Your task to perform on an android device: Go to privacy settings Image 0: 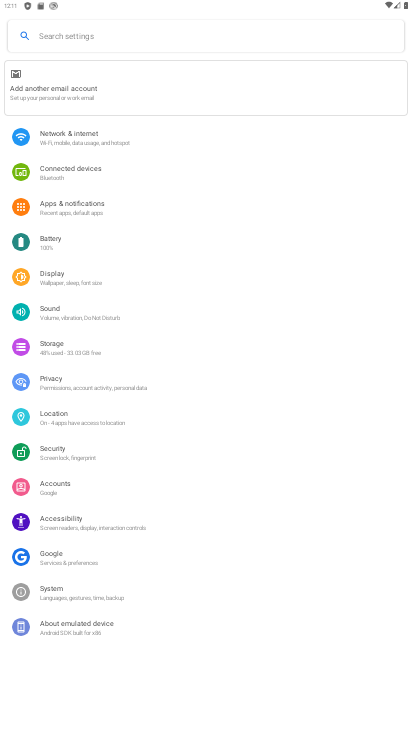
Step 0: click (186, 391)
Your task to perform on an android device: Go to privacy settings Image 1: 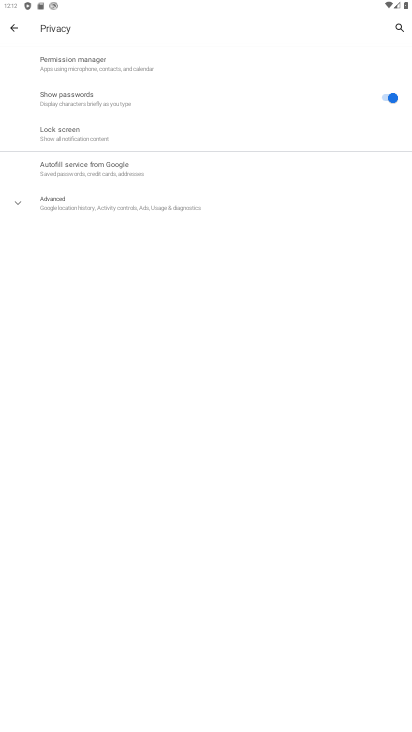
Step 1: task complete